Your task to perform on an android device: How big is a blue whale? Image 0: 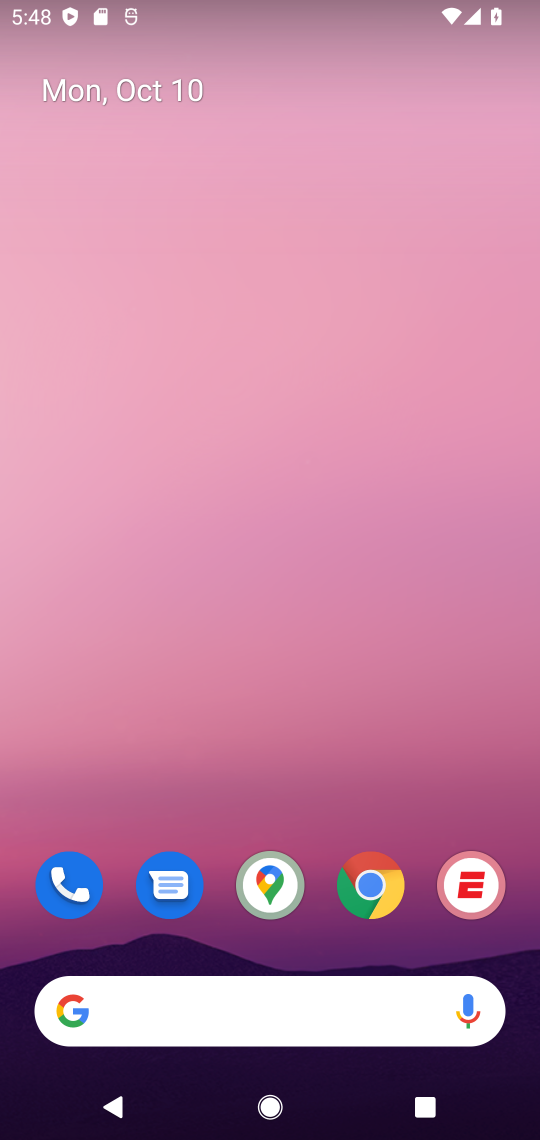
Step 0: click (372, 892)
Your task to perform on an android device: How big is a blue whale? Image 1: 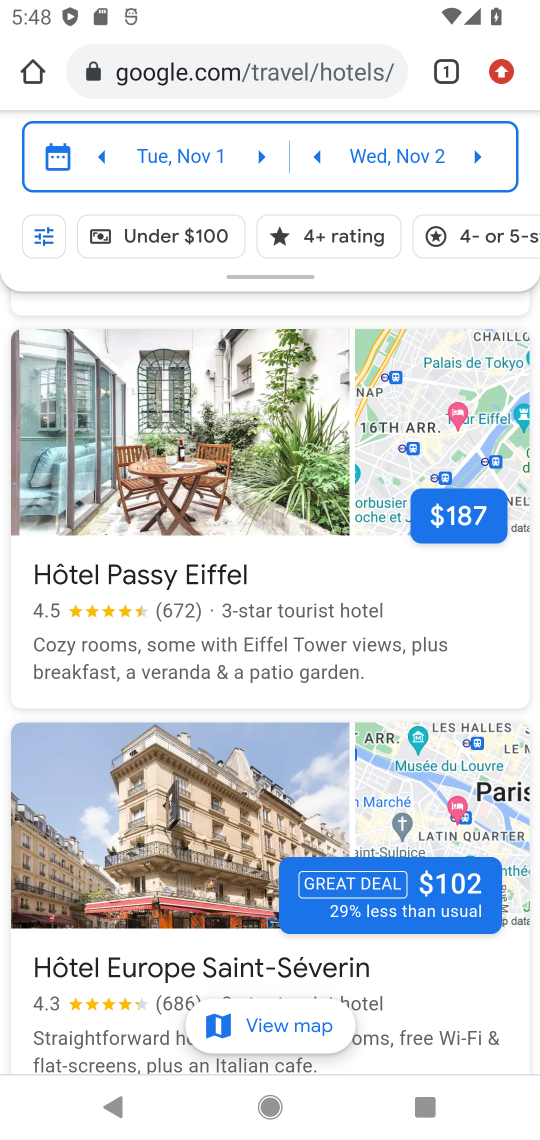
Step 1: click (226, 76)
Your task to perform on an android device: How big is a blue whale? Image 2: 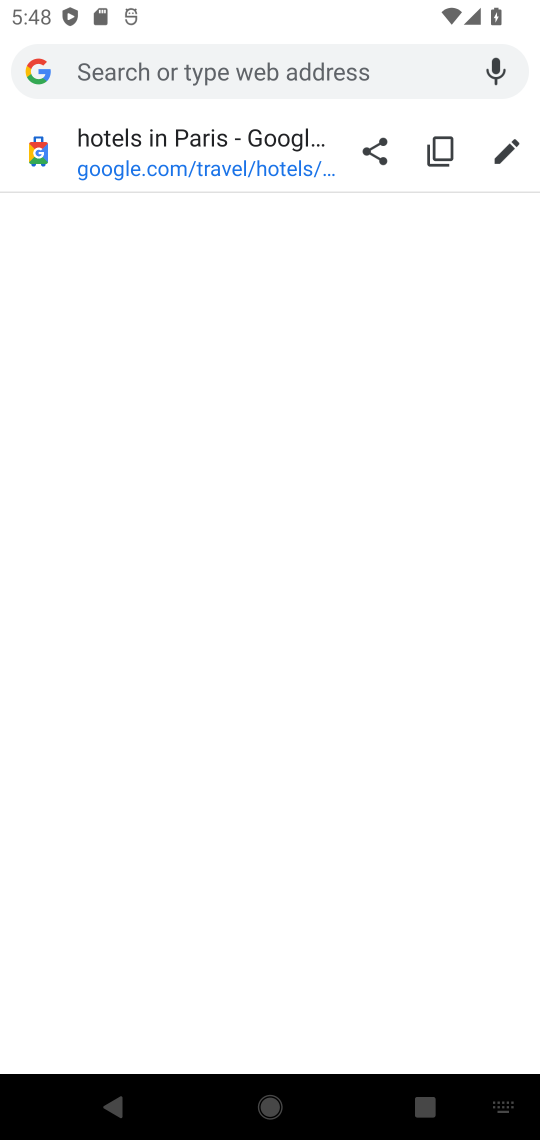
Step 2: type "How big is a blue whale"
Your task to perform on an android device: How big is a blue whale? Image 3: 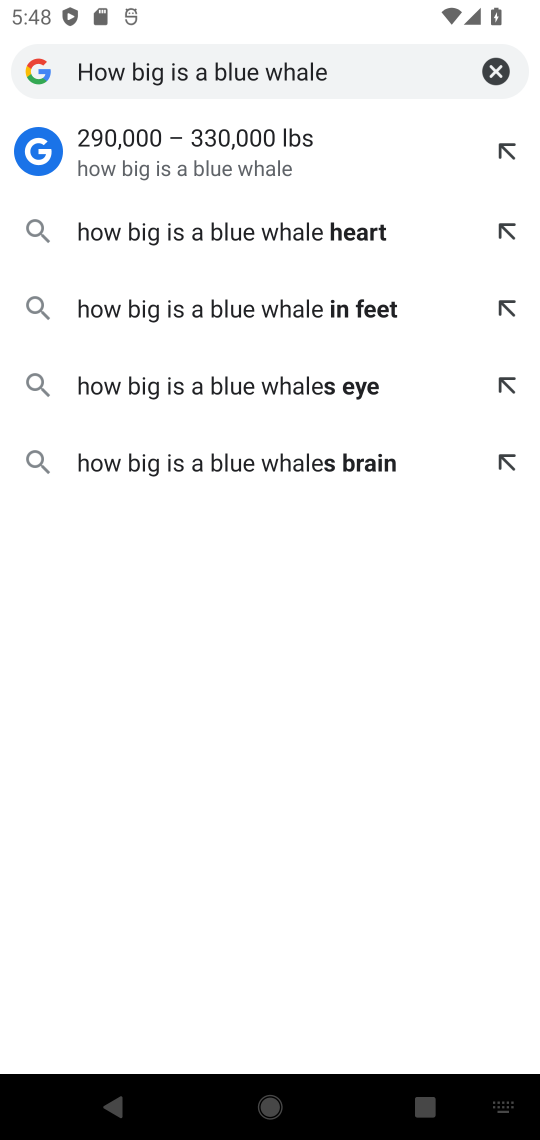
Step 3: click (237, 154)
Your task to perform on an android device: How big is a blue whale? Image 4: 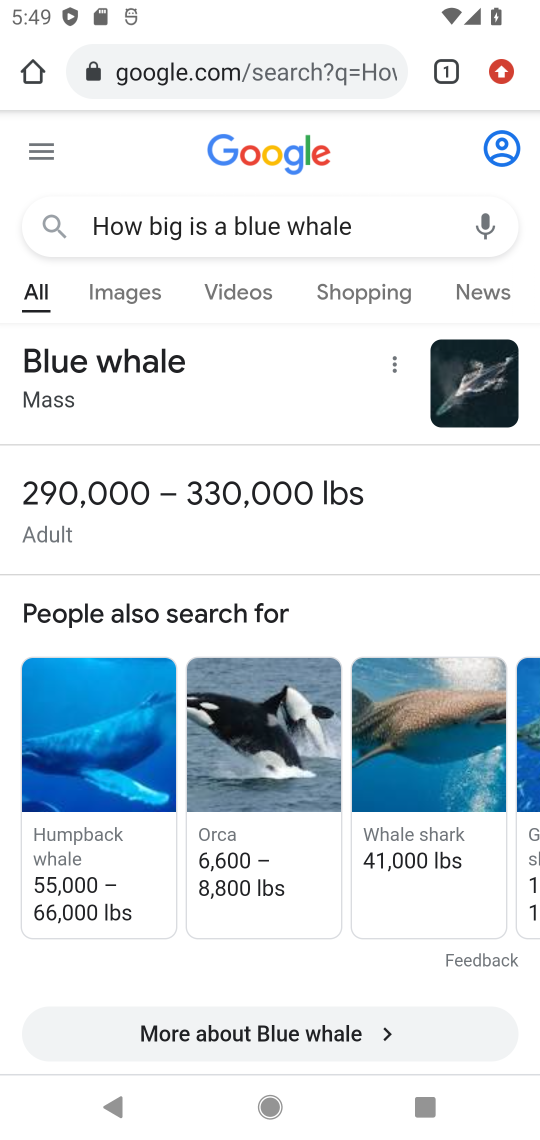
Step 4: task complete